Your task to perform on an android device: turn on translation in the chrome app Image 0: 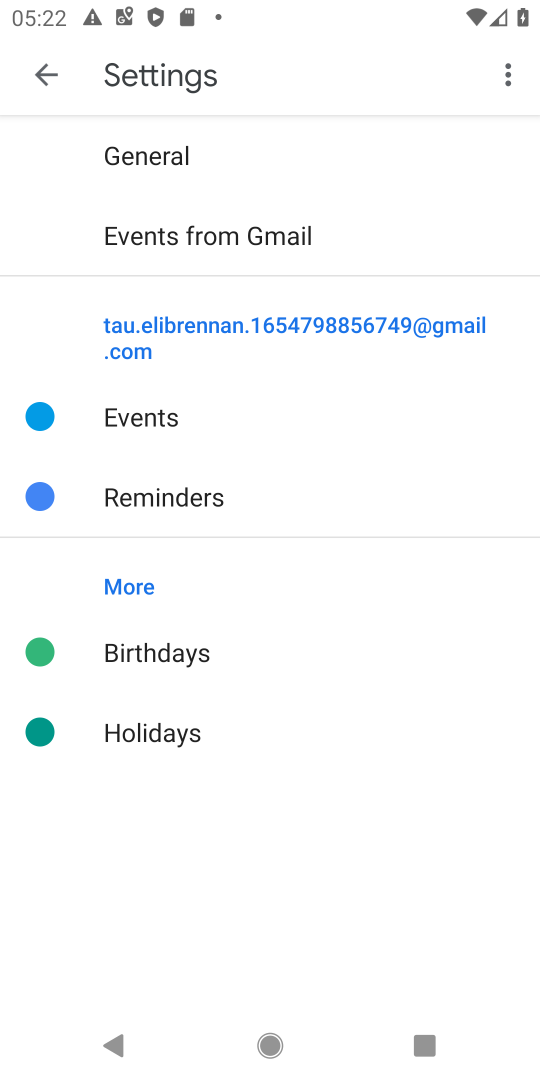
Step 0: press home button
Your task to perform on an android device: turn on translation in the chrome app Image 1: 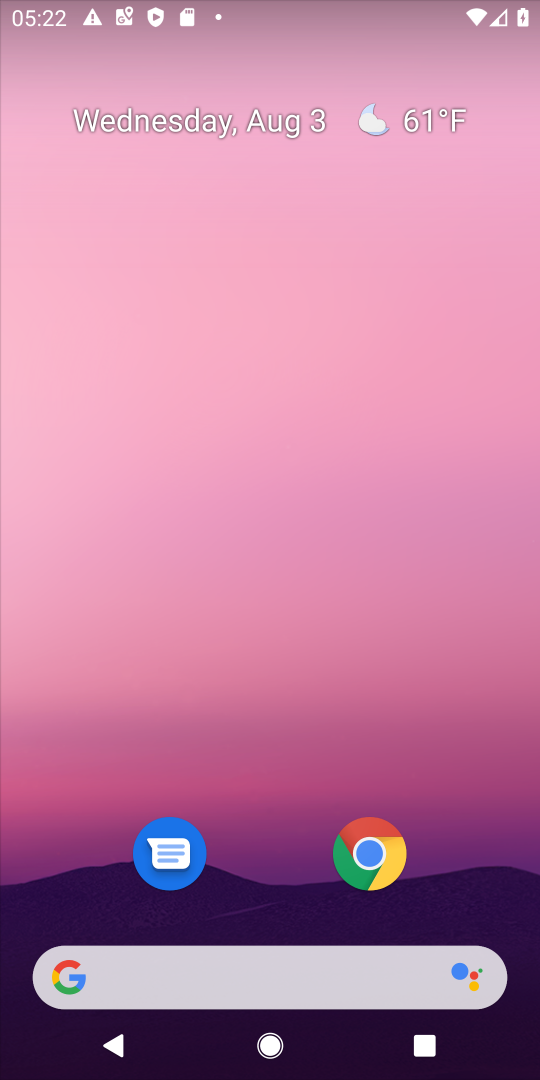
Step 1: drag from (256, 897) to (254, 57)
Your task to perform on an android device: turn on translation in the chrome app Image 2: 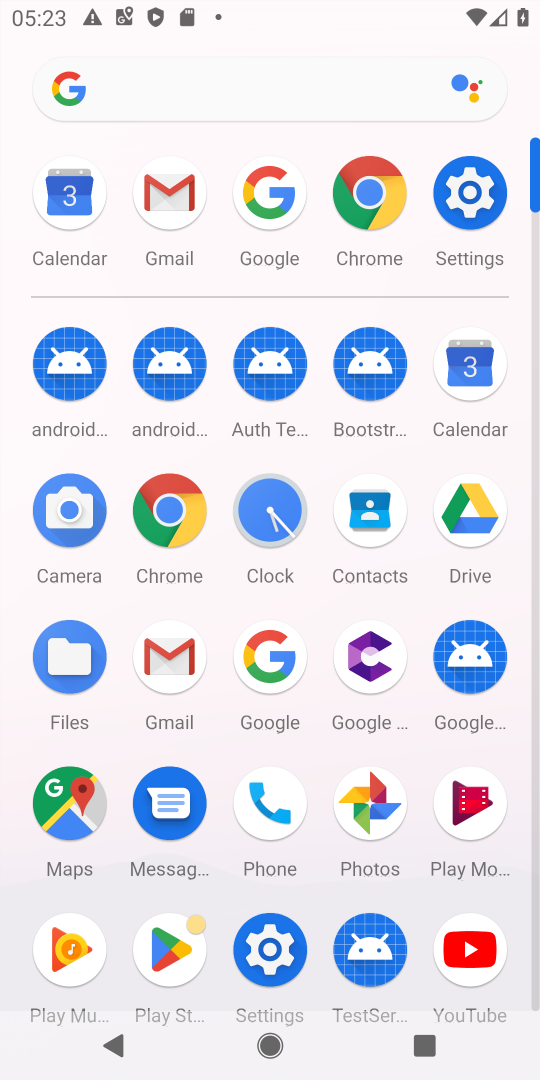
Step 2: click (376, 193)
Your task to perform on an android device: turn on translation in the chrome app Image 3: 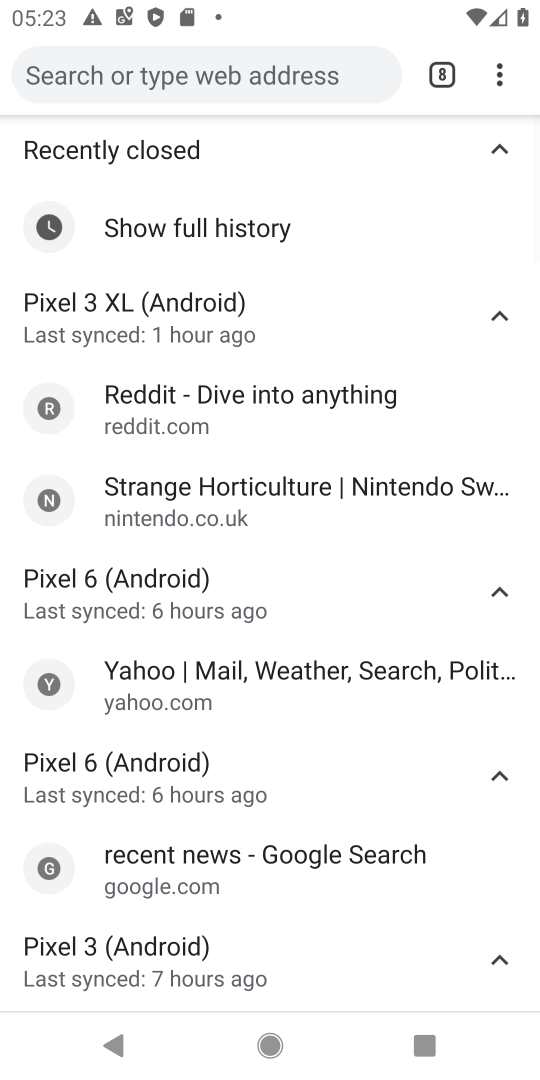
Step 3: click (498, 81)
Your task to perform on an android device: turn on translation in the chrome app Image 4: 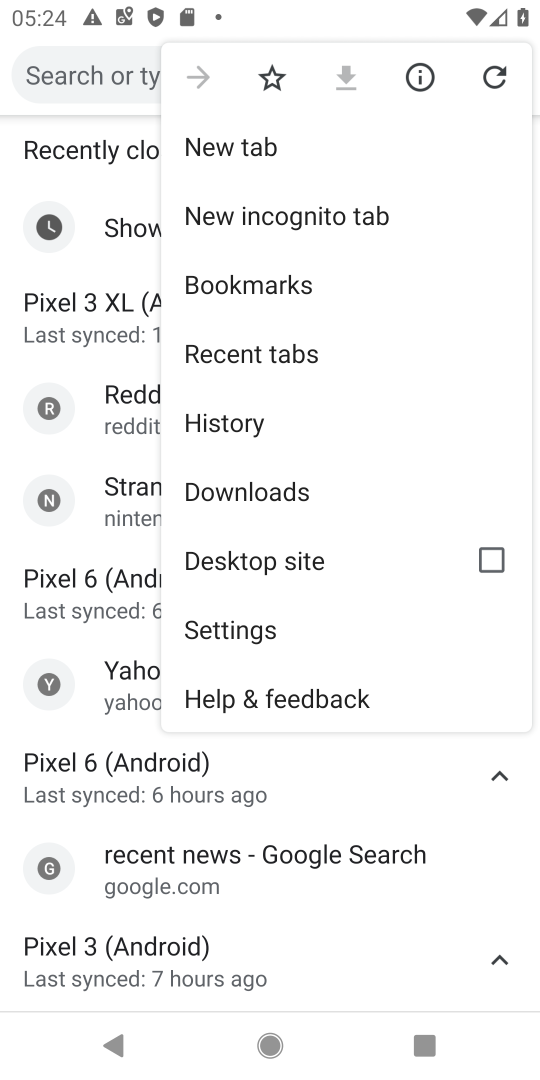
Step 4: click (243, 631)
Your task to perform on an android device: turn on translation in the chrome app Image 5: 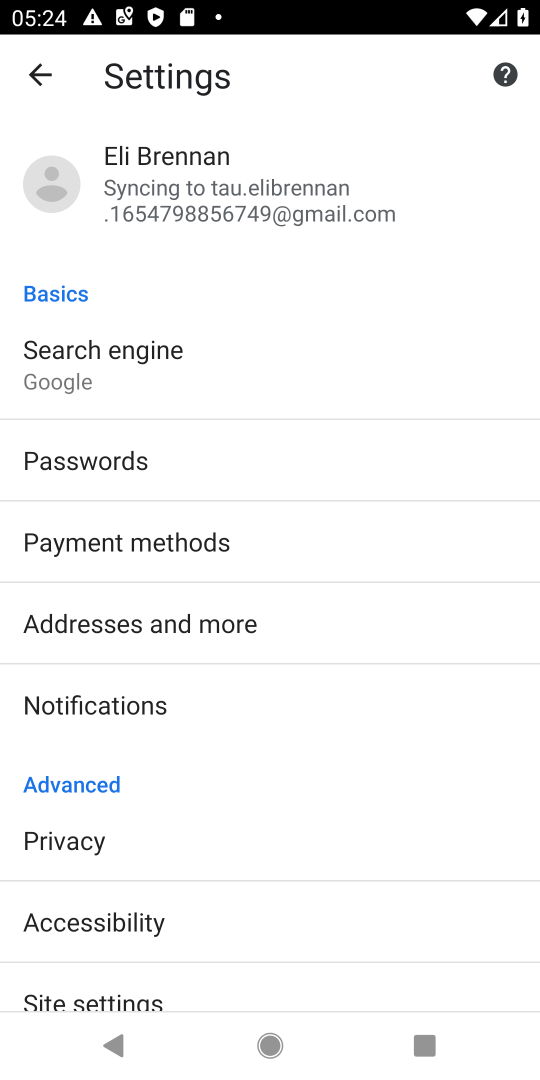
Step 5: drag from (89, 959) to (134, 518)
Your task to perform on an android device: turn on translation in the chrome app Image 6: 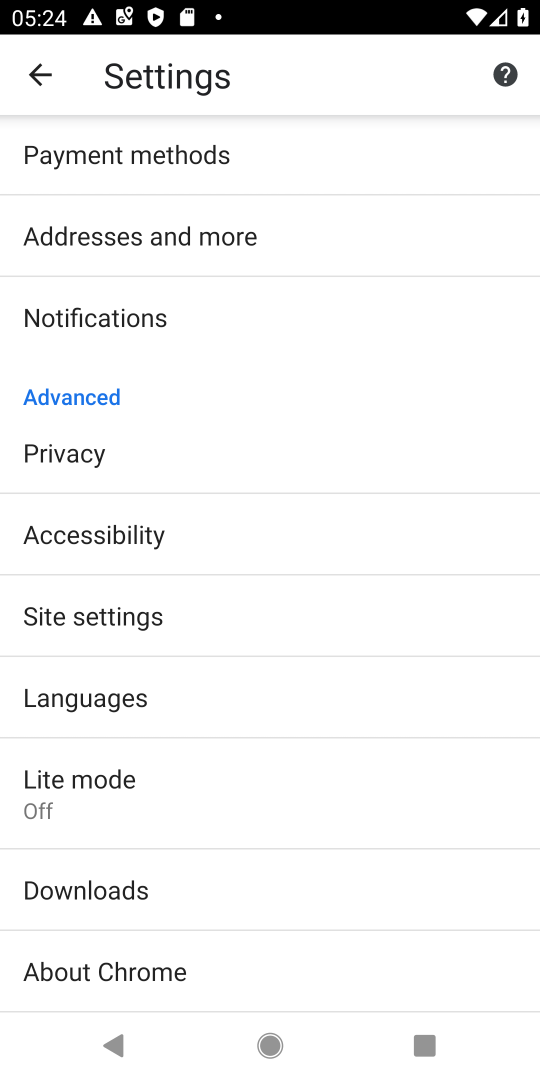
Step 6: click (98, 690)
Your task to perform on an android device: turn on translation in the chrome app Image 7: 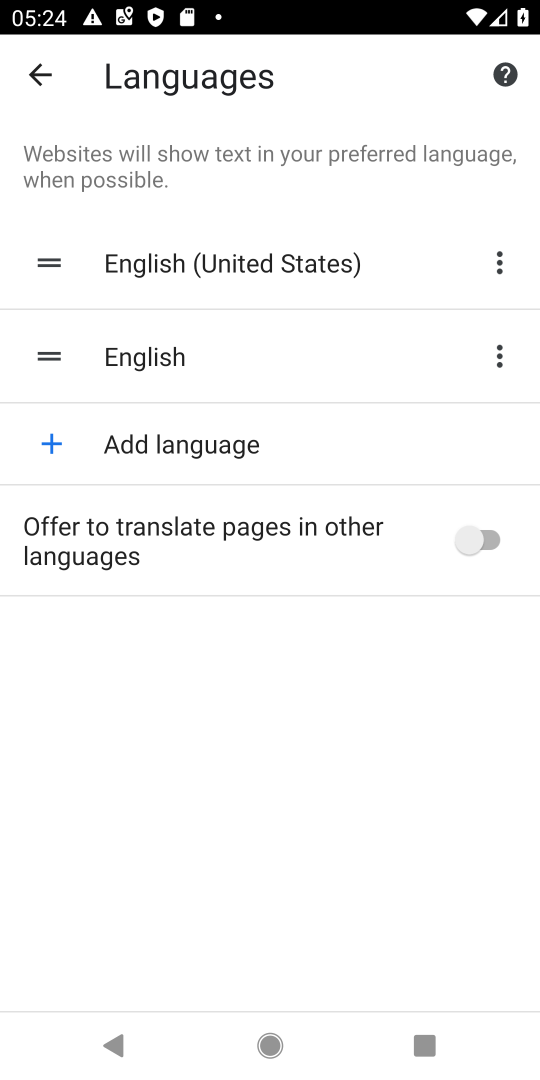
Step 7: click (493, 528)
Your task to perform on an android device: turn on translation in the chrome app Image 8: 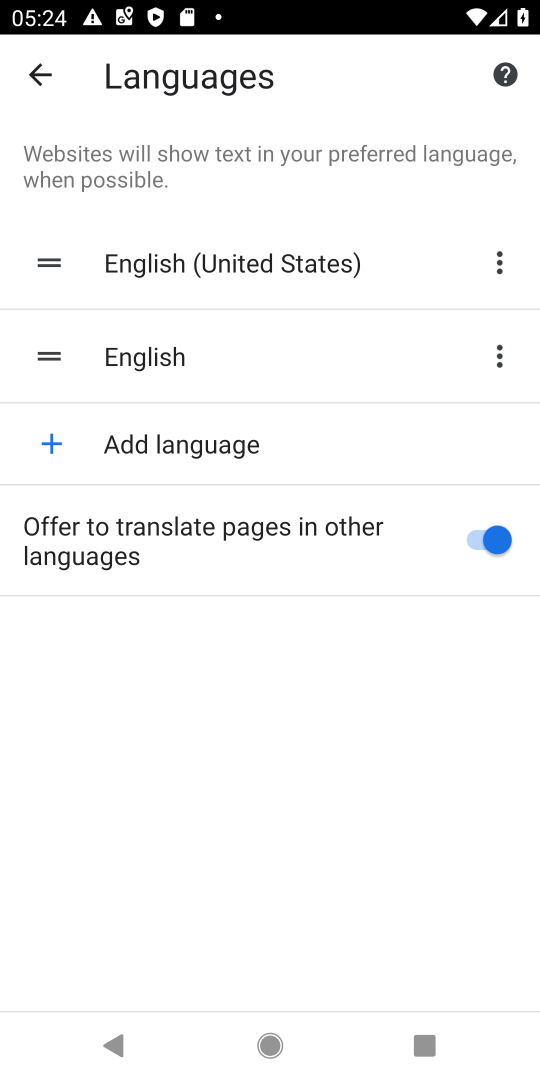
Step 8: task complete